Your task to perform on an android device: all mails in gmail Image 0: 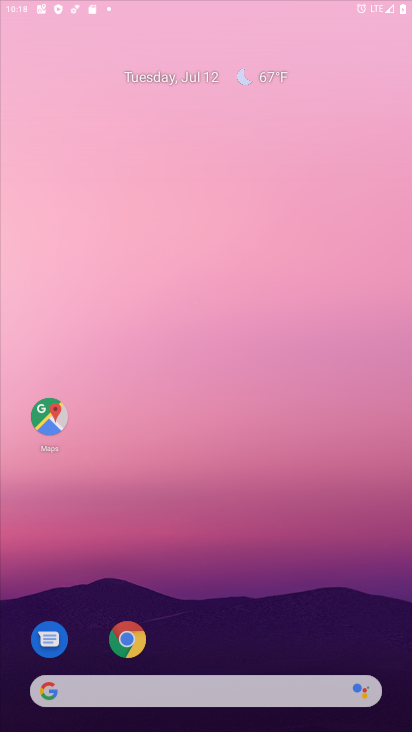
Step 0: click (217, 362)
Your task to perform on an android device: all mails in gmail Image 1: 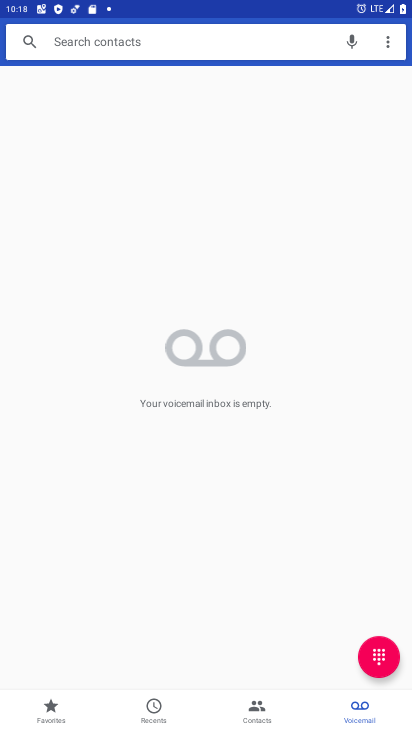
Step 1: drag from (123, 528) to (253, 310)
Your task to perform on an android device: all mails in gmail Image 2: 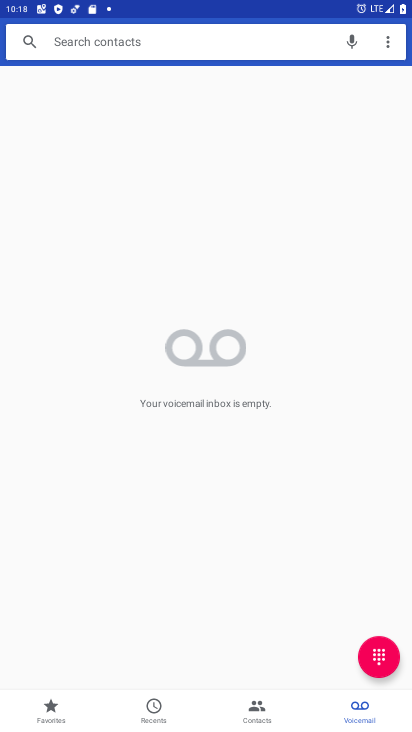
Step 2: press home button
Your task to perform on an android device: all mails in gmail Image 3: 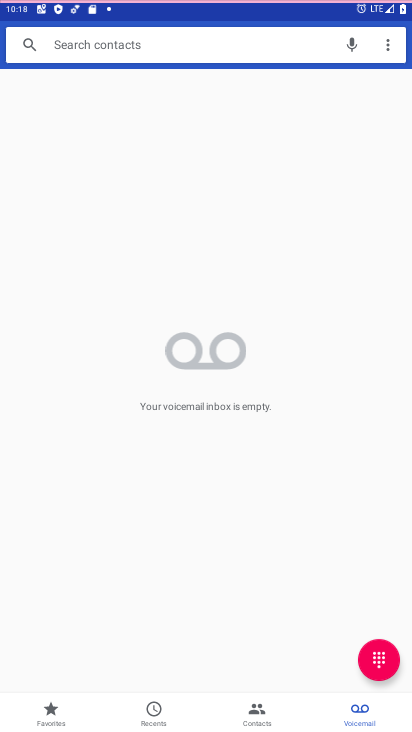
Step 3: drag from (245, 610) to (288, 178)
Your task to perform on an android device: all mails in gmail Image 4: 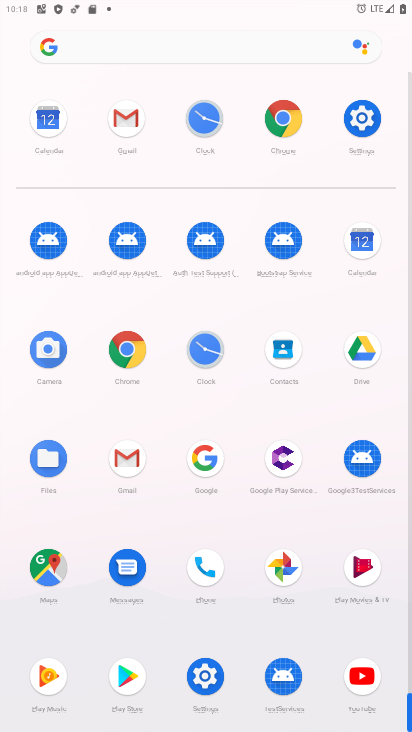
Step 4: click (116, 120)
Your task to perform on an android device: all mails in gmail Image 5: 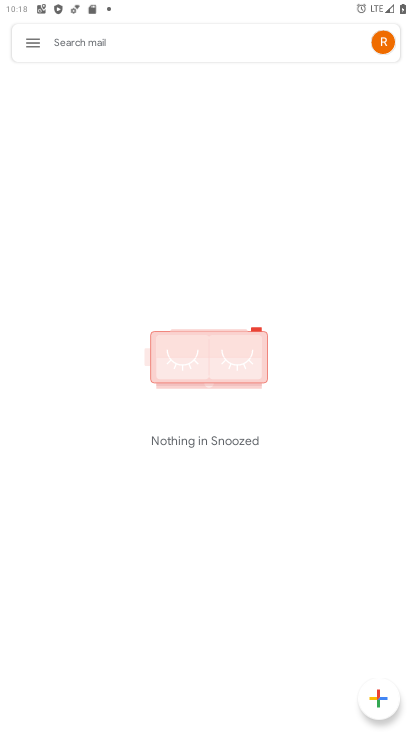
Step 5: click (39, 44)
Your task to perform on an android device: all mails in gmail Image 6: 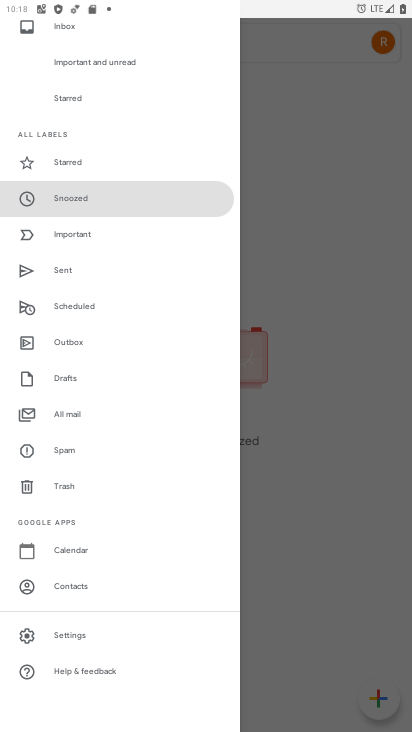
Step 6: click (77, 423)
Your task to perform on an android device: all mails in gmail Image 7: 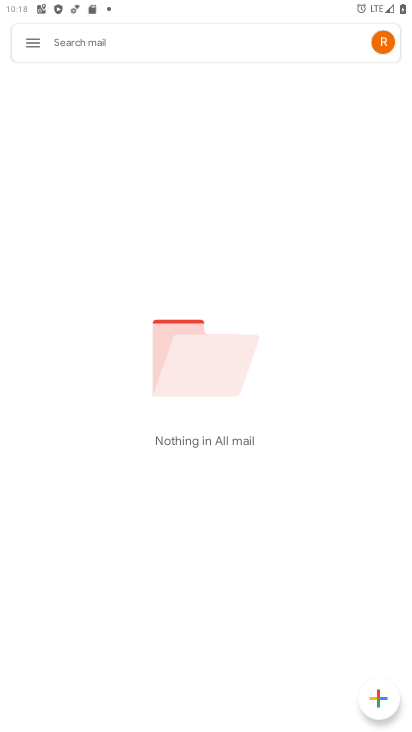
Step 7: task complete